Your task to perform on an android device: delete the emails in spam in the gmail app Image 0: 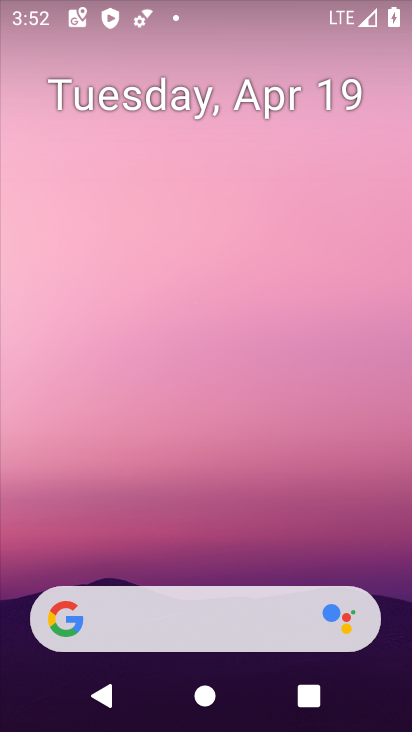
Step 0: drag from (249, 540) to (299, 122)
Your task to perform on an android device: delete the emails in spam in the gmail app Image 1: 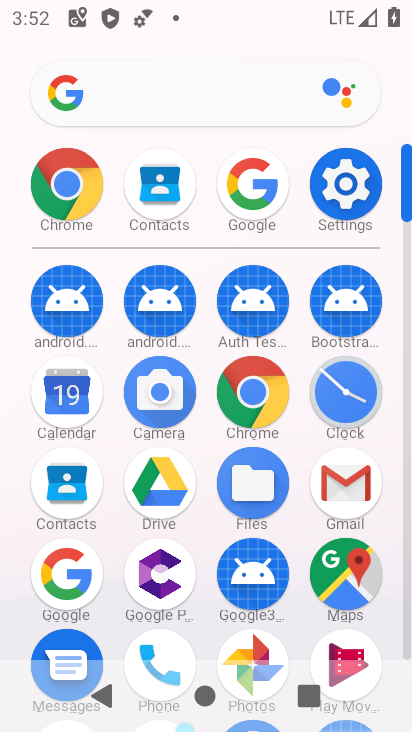
Step 1: drag from (300, 475) to (300, 318)
Your task to perform on an android device: delete the emails in spam in the gmail app Image 2: 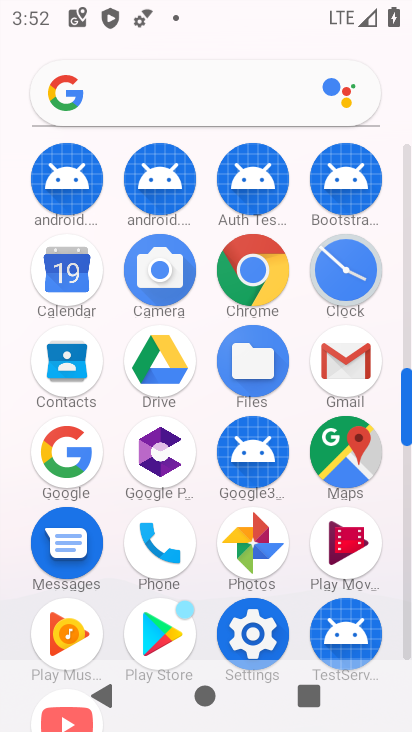
Step 2: click (342, 364)
Your task to perform on an android device: delete the emails in spam in the gmail app Image 3: 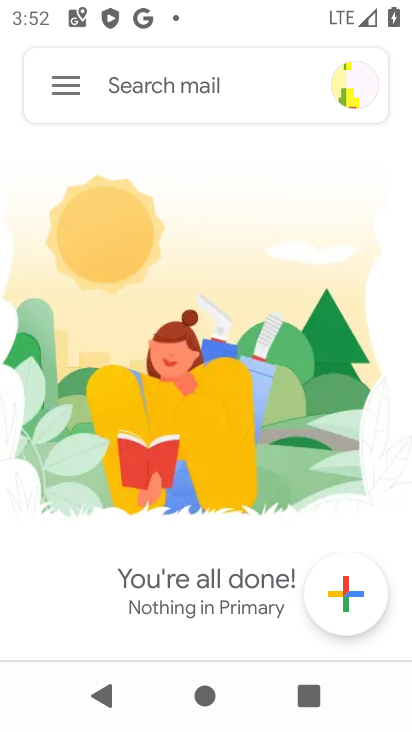
Step 3: click (68, 77)
Your task to perform on an android device: delete the emails in spam in the gmail app Image 4: 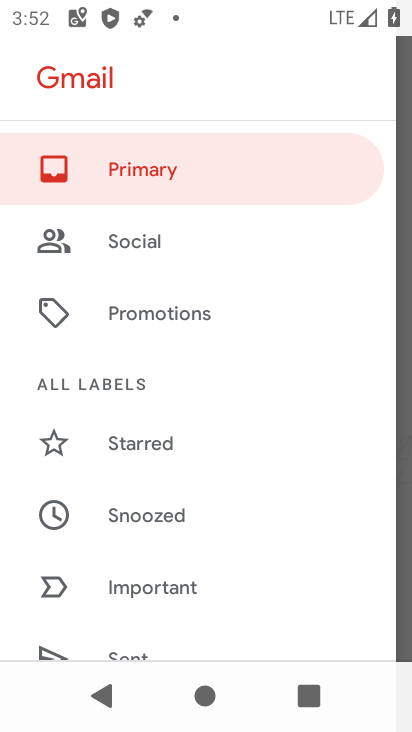
Step 4: drag from (195, 532) to (208, 460)
Your task to perform on an android device: delete the emails in spam in the gmail app Image 5: 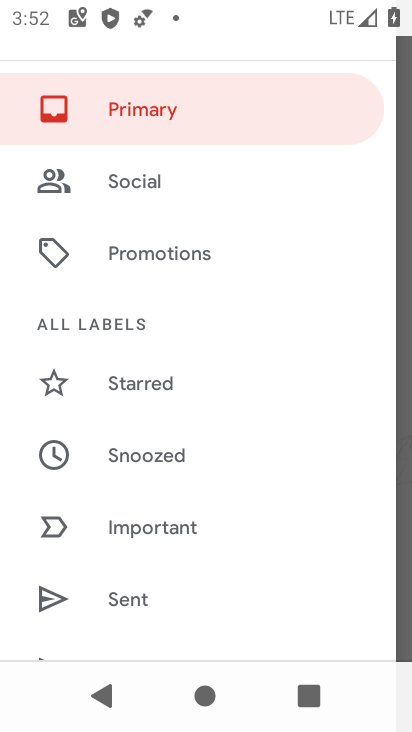
Step 5: drag from (212, 534) to (233, 457)
Your task to perform on an android device: delete the emails in spam in the gmail app Image 6: 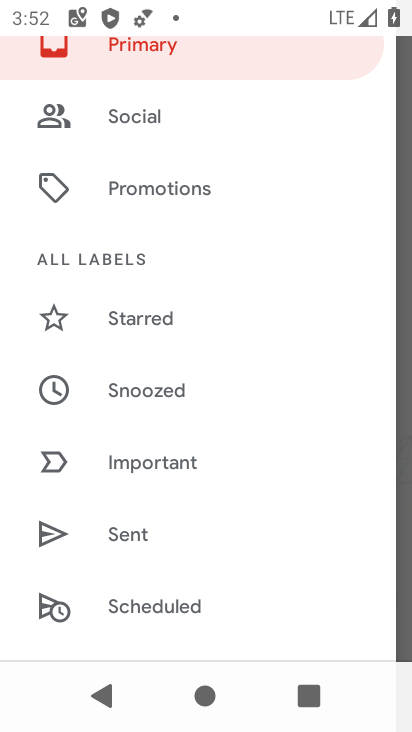
Step 6: drag from (213, 543) to (223, 456)
Your task to perform on an android device: delete the emails in spam in the gmail app Image 7: 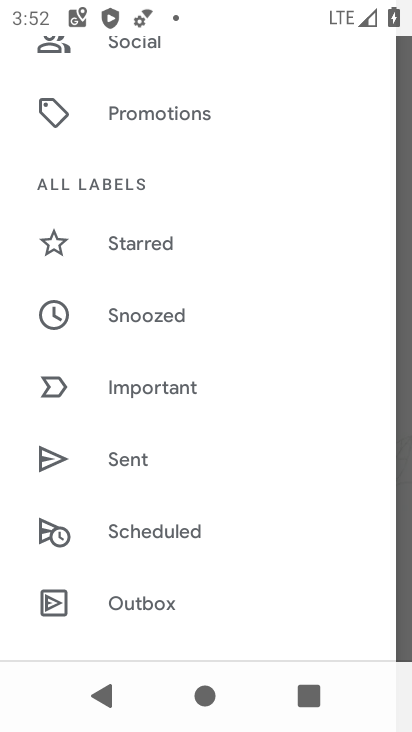
Step 7: drag from (212, 573) to (220, 471)
Your task to perform on an android device: delete the emails in spam in the gmail app Image 8: 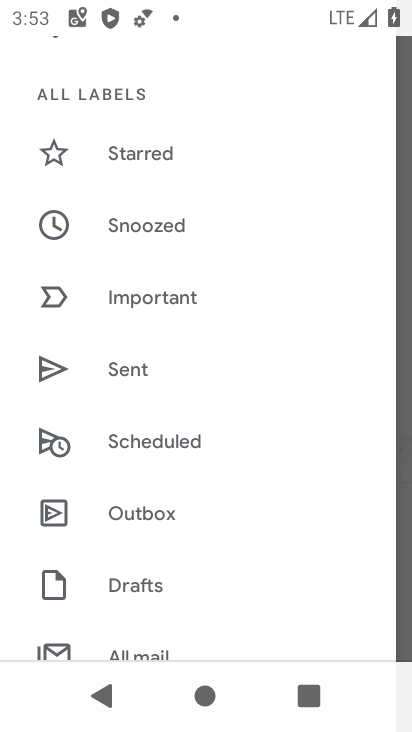
Step 8: drag from (207, 589) to (215, 488)
Your task to perform on an android device: delete the emails in spam in the gmail app Image 9: 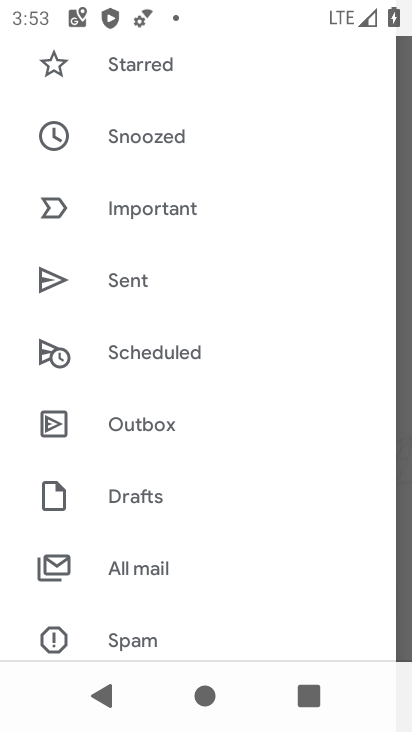
Step 9: drag from (221, 601) to (226, 516)
Your task to perform on an android device: delete the emails in spam in the gmail app Image 10: 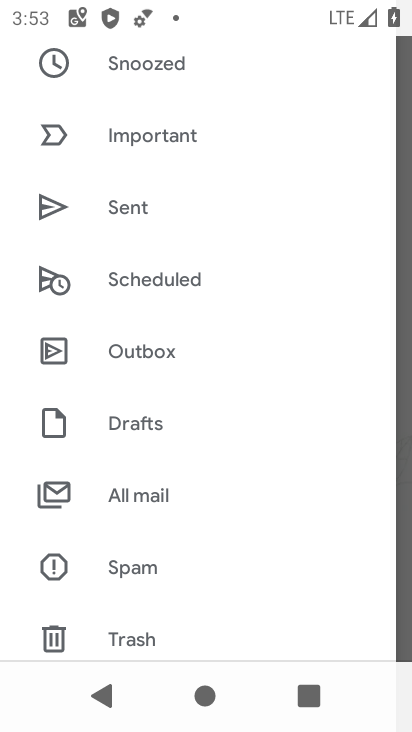
Step 10: click (128, 567)
Your task to perform on an android device: delete the emails in spam in the gmail app Image 11: 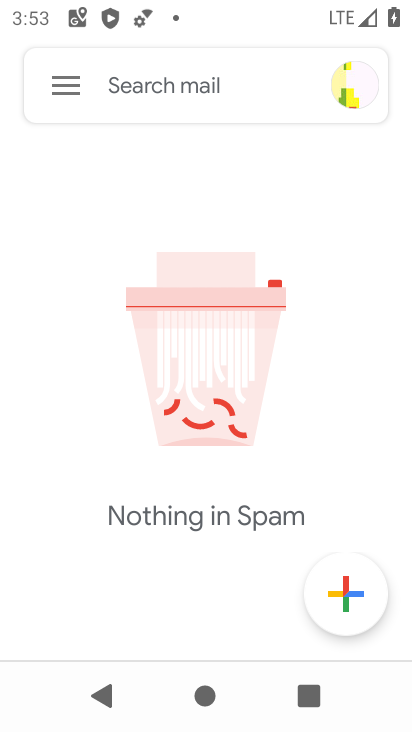
Step 11: task complete